Your task to perform on an android device: empty trash in google photos Image 0: 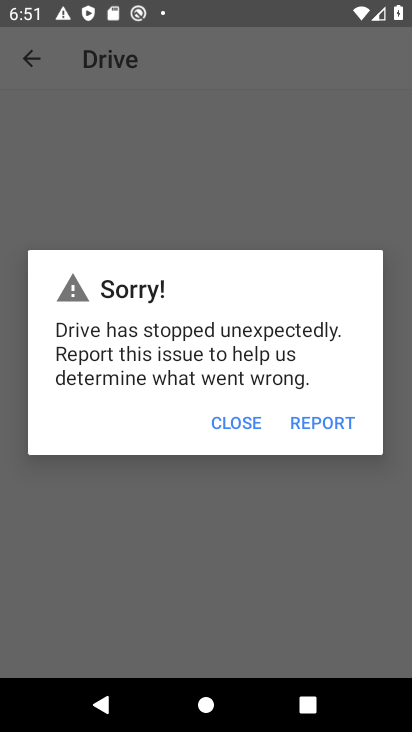
Step 0: press home button
Your task to perform on an android device: empty trash in google photos Image 1: 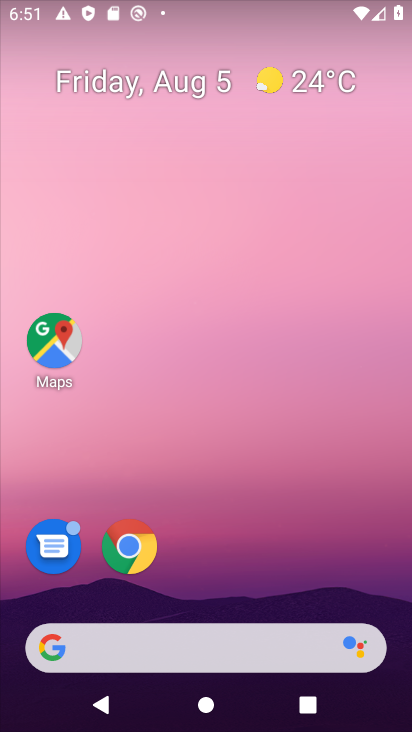
Step 1: drag from (185, 626) to (207, 209)
Your task to perform on an android device: empty trash in google photos Image 2: 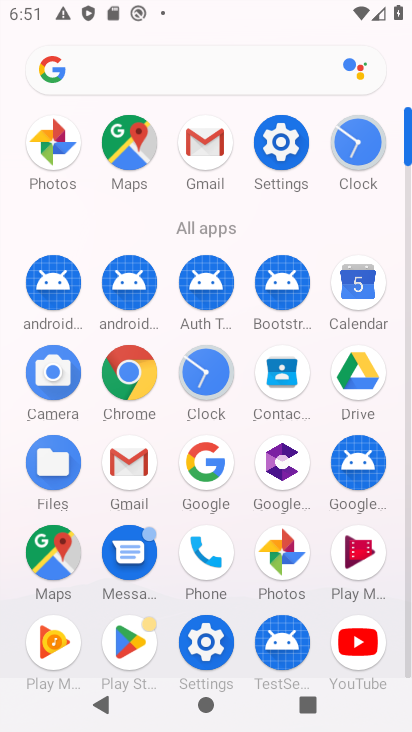
Step 2: click (275, 554)
Your task to perform on an android device: empty trash in google photos Image 3: 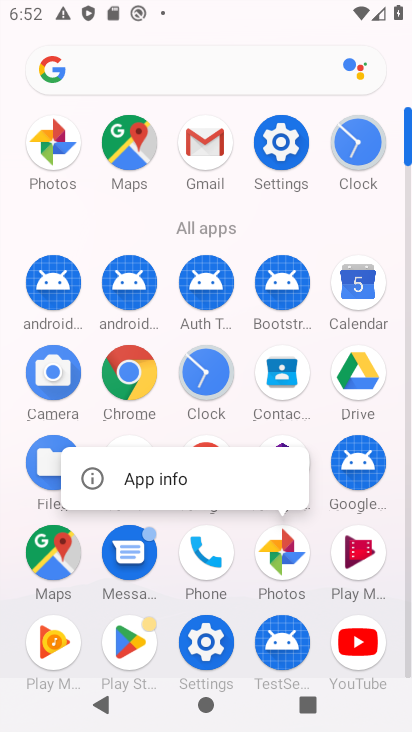
Step 3: click (224, 482)
Your task to perform on an android device: empty trash in google photos Image 4: 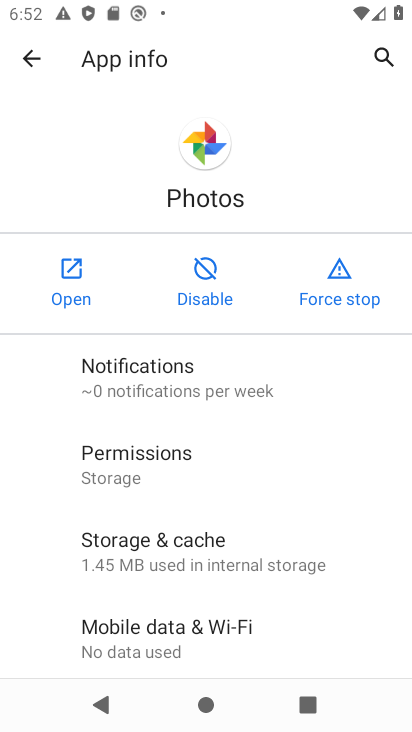
Step 4: click (81, 282)
Your task to perform on an android device: empty trash in google photos Image 5: 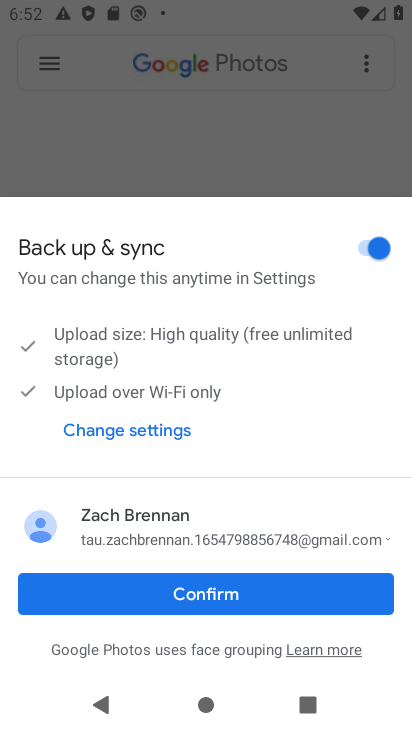
Step 5: press home button
Your task to perform on an android device: empty trash in google photos Image 6: 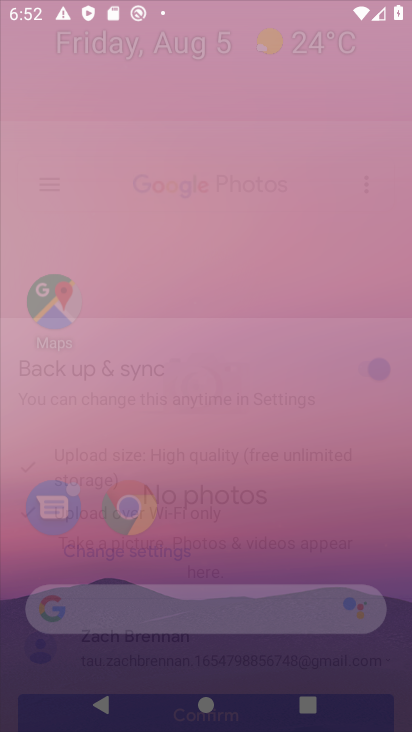
Step 6: drag from (261, 474) to (336, 93)
Your task to perform on an android device: empty trash in google photos Image 7: 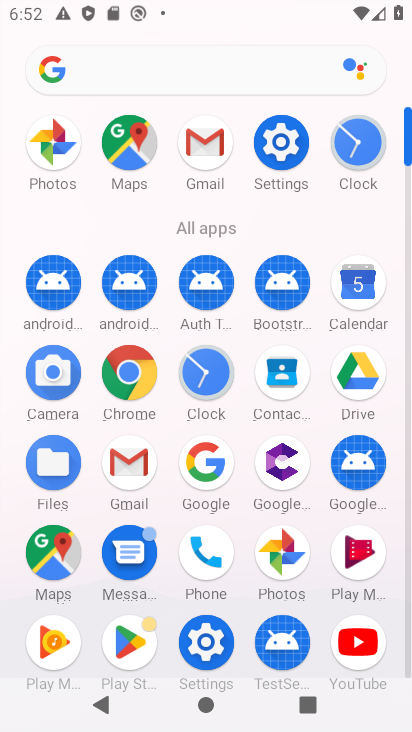
Step 7: click (283, 549)
Your task to perform on an android device: empty trash in google photos Image 8: 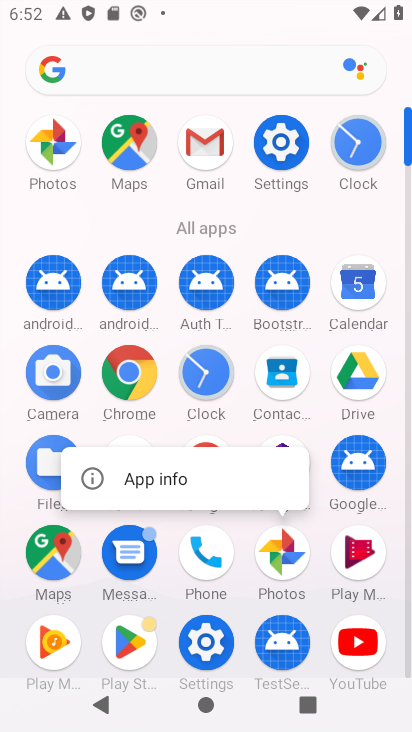
Step 8: click (144, 477)
Your task to perform on an android device: empty trash in google photos Image 9: 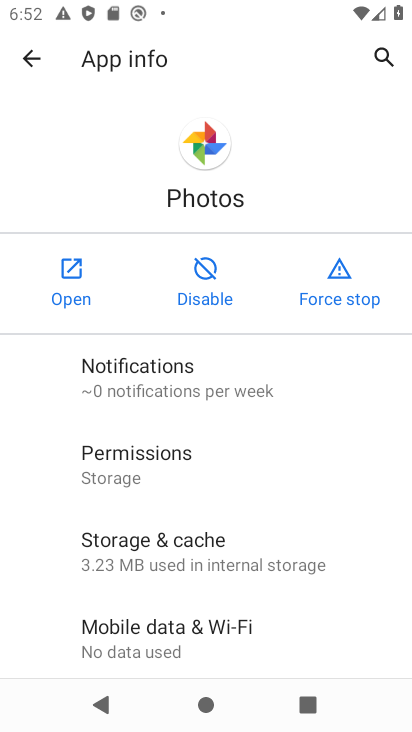
Step 9: click (80, 282)
Your task to perform on an android device: empty trash in google photos Image 10: 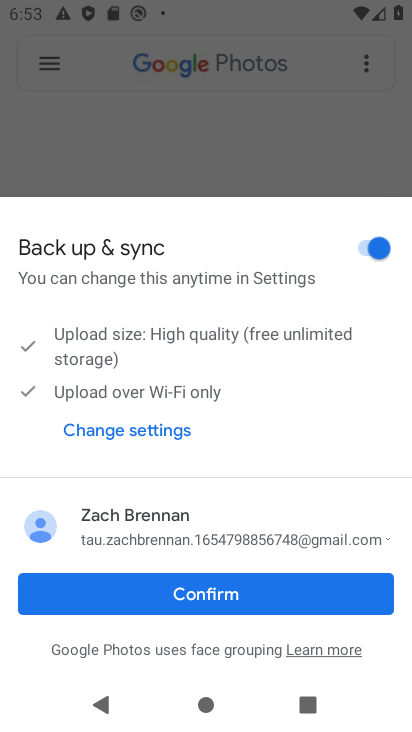
Step 10: drag from (216, 495) to (255, 331)
Your task to perform on an android device: empty trash in google photos Image 11: 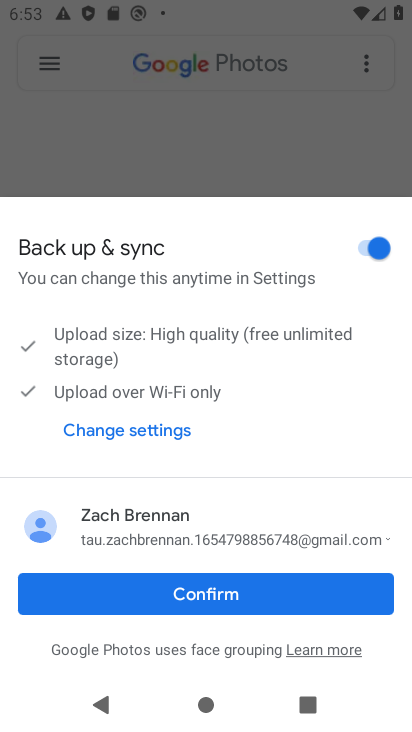
Step 11: click (189, 602)
Your task to perform on an android device: empty trash in google photos Image 12: 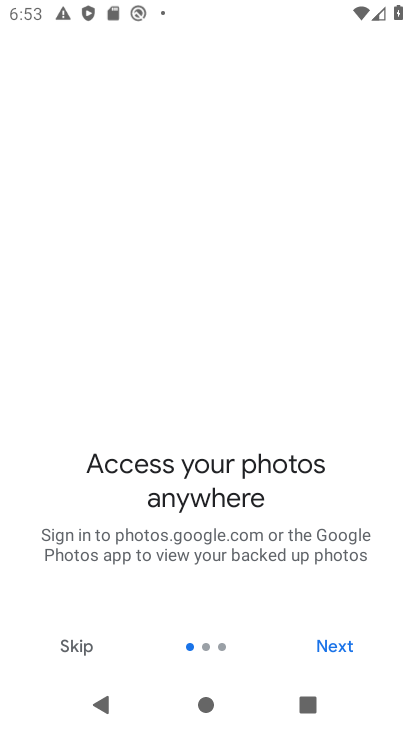
Step 12: click (78, 645)
Your task to perform on an android device: empty trash in google photos Image 13: 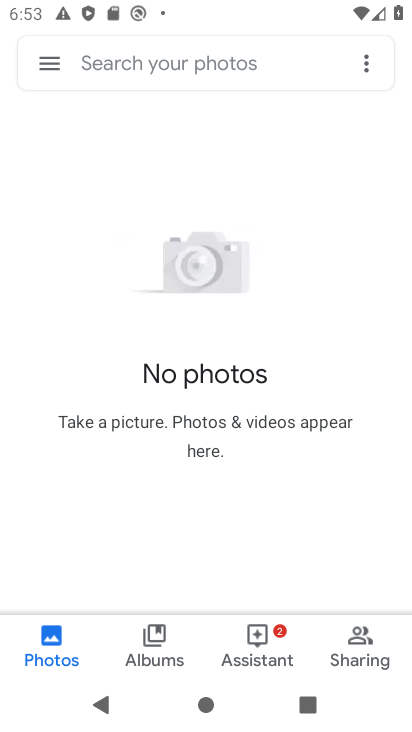
Step 13: click (54, 68)
Your task to perform on an android device: empty trash in google photos Image 14: 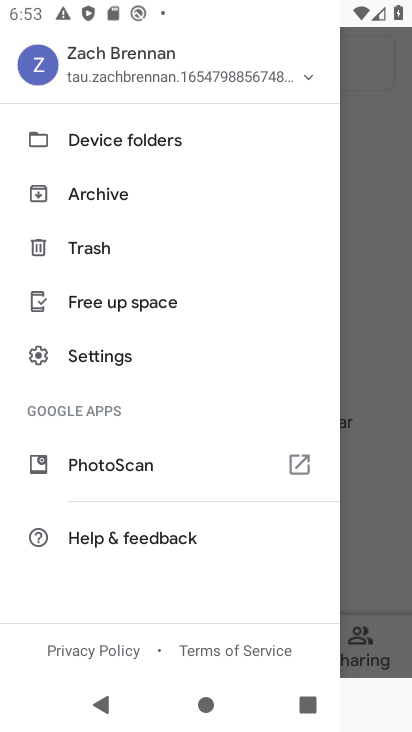
Step 14: click (389, 351)
Your task to perform on an android device: empty trash in google photos Image 15: 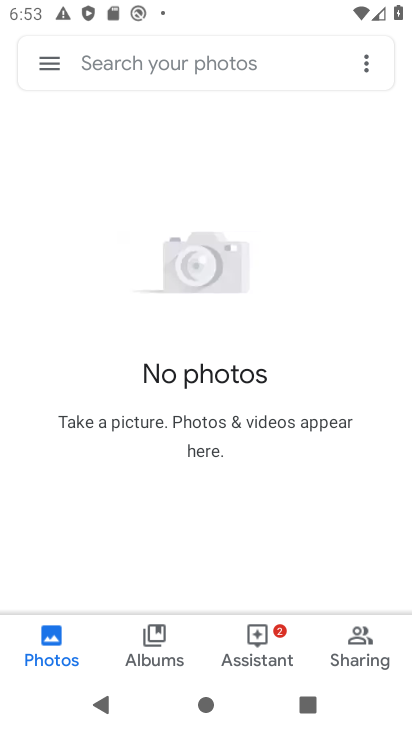
Step 15: click (360, 632)
Your task to perform on an android device: empty trash in google photos Image 16: 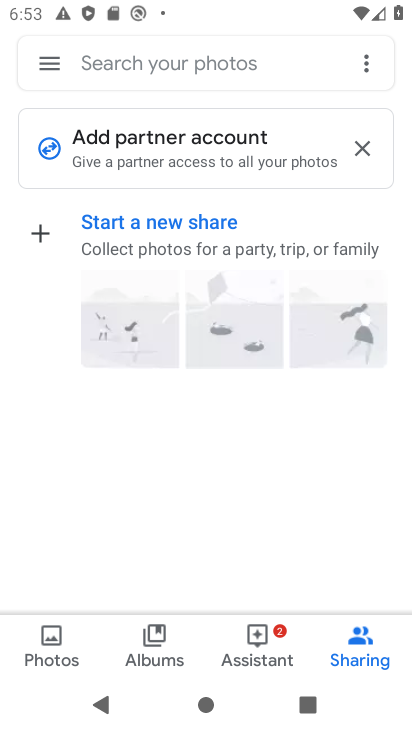
Step 16: click (156, 624)
Your task to perform on an android device: empty trash in google photos Image 17: 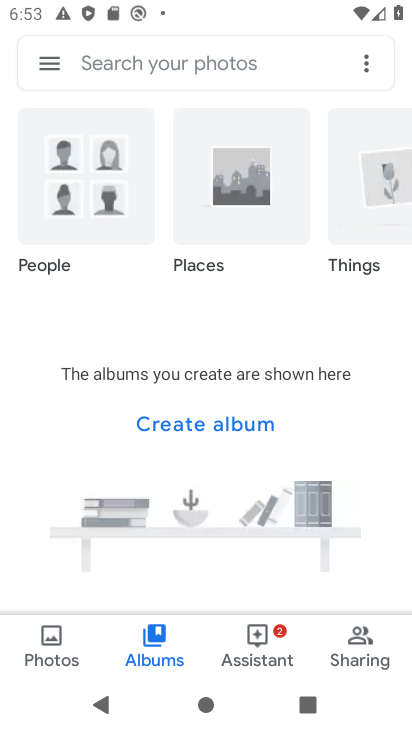
Step 17: click (56, 624)
Your task to perform on an android device: empty trash in google photos Image 18: 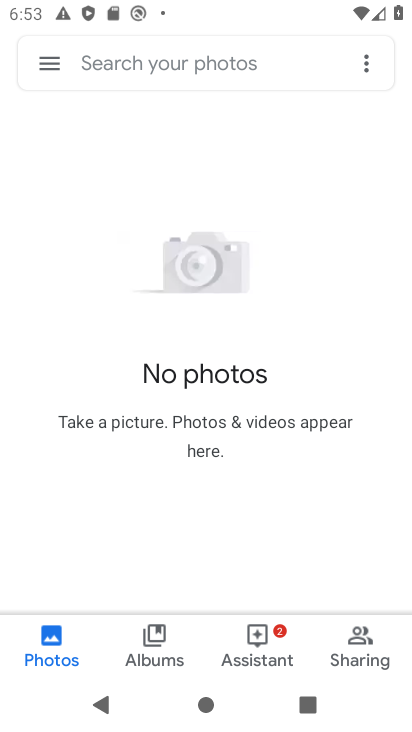
Step 18: click (57, 76)
Your task to perform on an android device: empty trash in google photos Image 19: 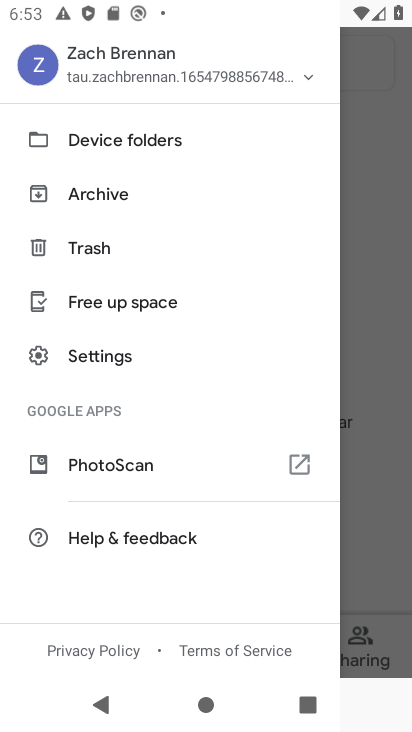
Step 19: click (76, 248)
Your task to perform on an android device: empty trash in google photos Image 20: 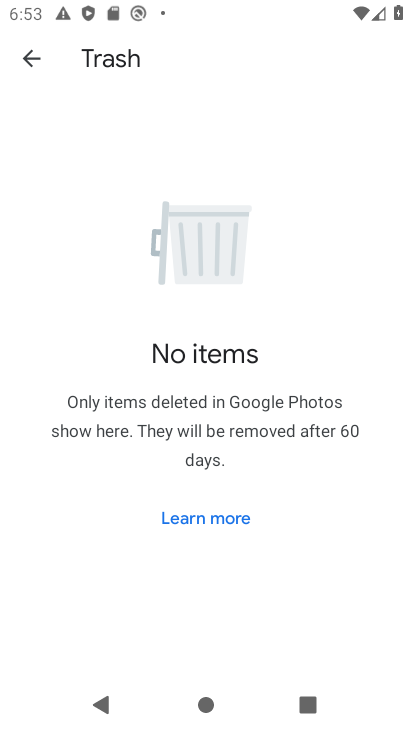
Step 20: task complete